Your task to perform on an android device: move an email to a new category in the gmail app Image 0: 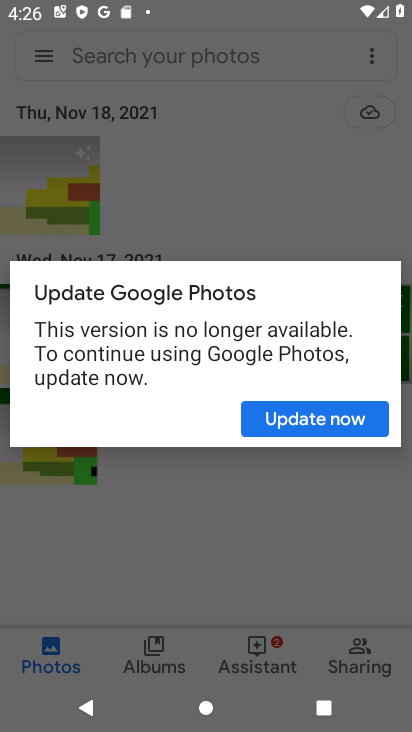
Step 0: press back button
Your task to perform on an android device: move an email to a new category in the gmail app Image 1: 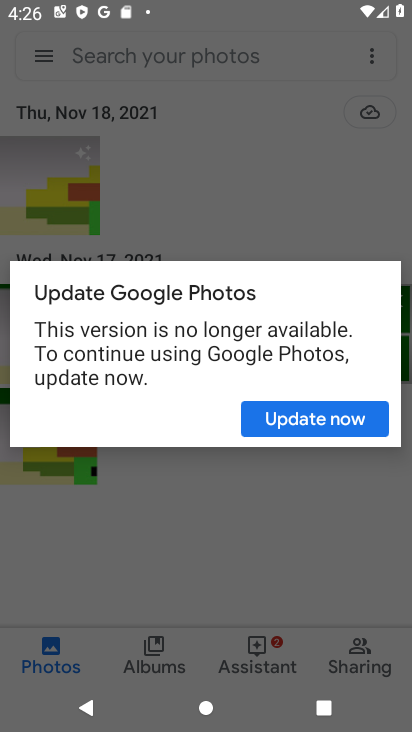
Step 1: press home button
Your task to perform on an android device: move an email to a new category in the gmail app Image 2: 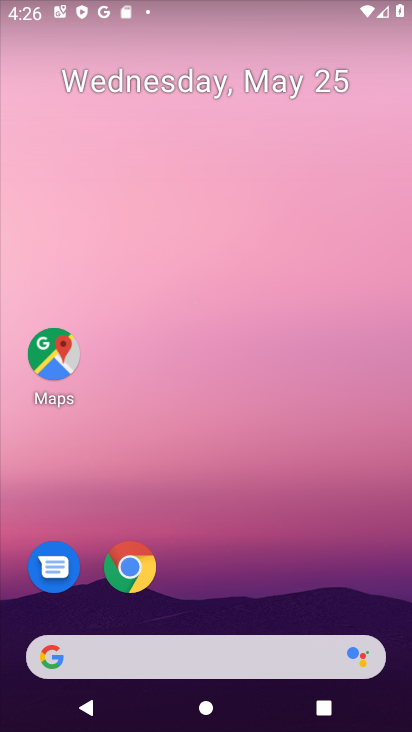
Step 2: drag from (313, 543) to (254, 53)
Your task to perform on an android device: move an email to a new category in the gmail app Image 3: 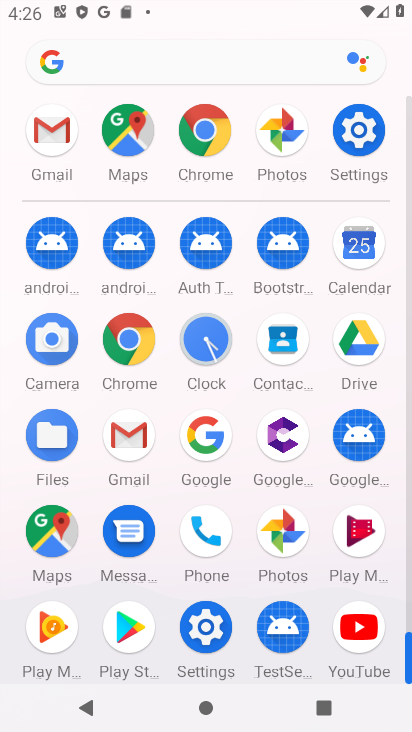
Step 3: drag from (9, 558) to (25, 286)
Your task to perform on an android device: move an email to a new category in the gmail app Image 4: 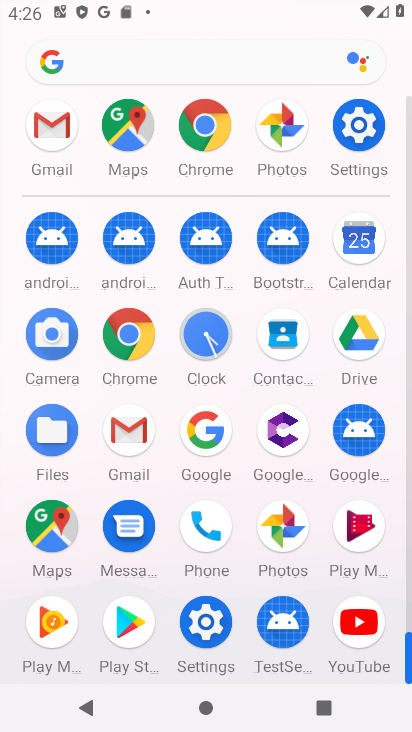
Step 4: click (125, 424)
Your task to perform on an android device: move an email to a new category in the gmail app Image 5: 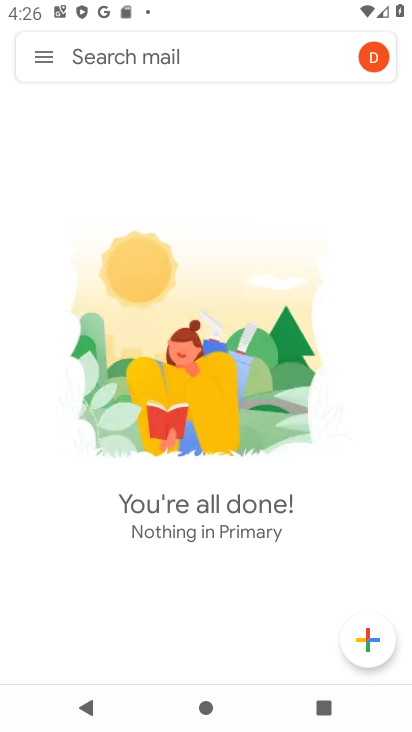
Step 5: click (38, 43)
Your task to perform on an android device: move an email to a new category in the gmail app Image 6: 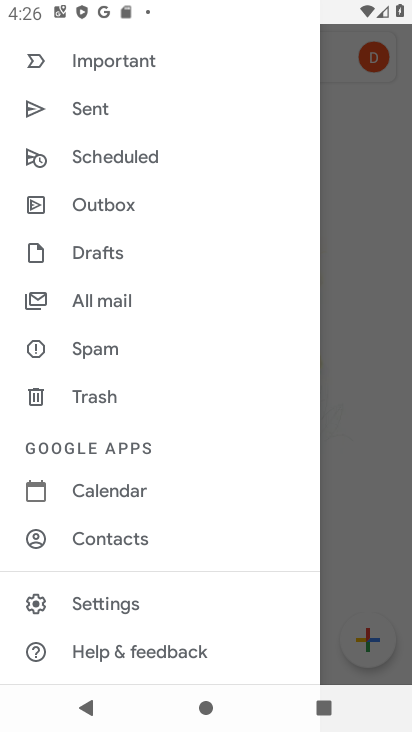
Step 6: click (112, 302)
Your task to perform on an android device: move an email to a new category in the gmail app Image 7: 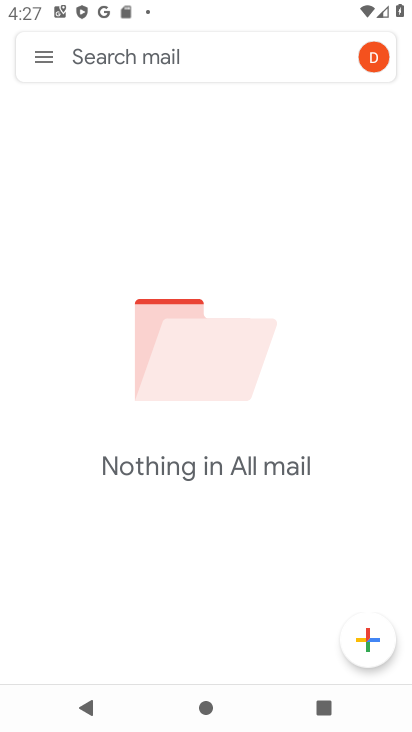
Step 7: click (41, 44)
Your task to perform on an android device: move an email to a new category in the gmail app Image 8: 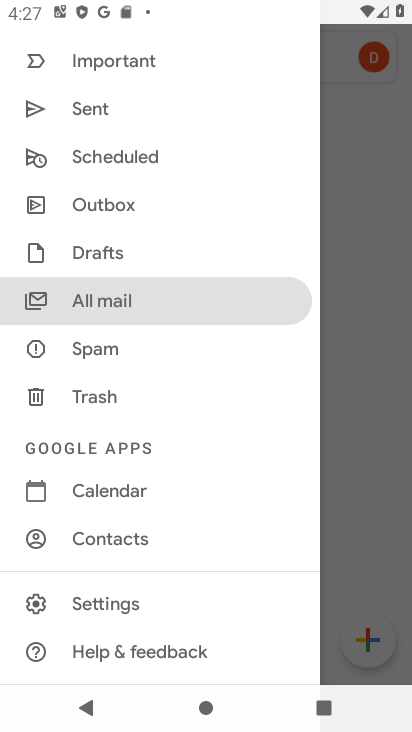
Step 8: drag from (177, 147) to (199, 465)
Your task to perform on an android device: move an email to a new category in the gmail app Image 9: 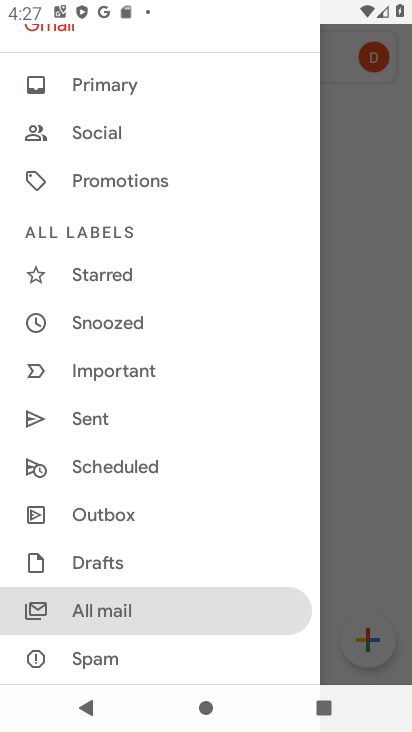
Step 9: drag from (187, 153) to (208, 578)
Your task to perform on an android device: move an email to a new category in the gmail app Image 10: 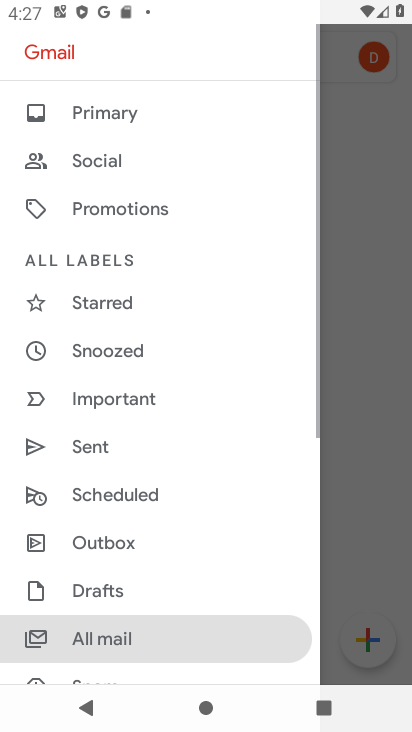
Step 10: click (125, 118)
Your task to perform on an android device: move an email to a new category in the gmail app Image 11: 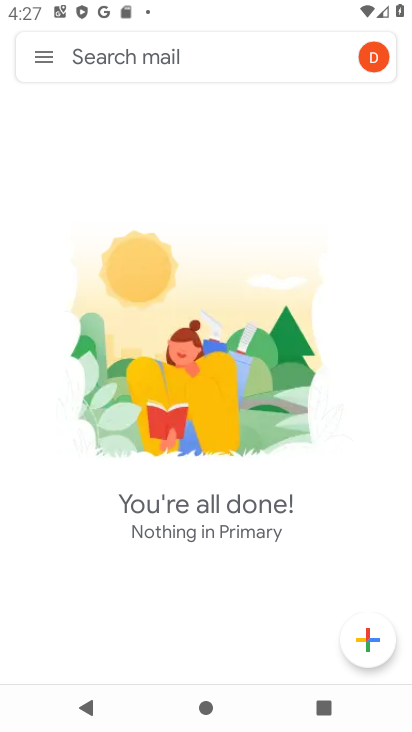
Step 11: task complete